Your task to perform on an android device: check google app version Image 0: 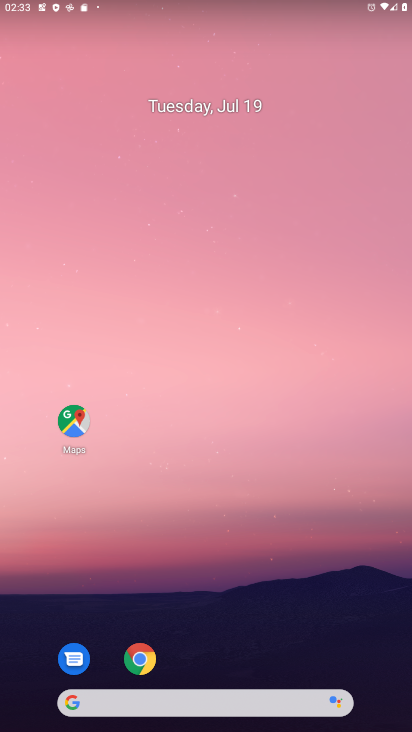
Step 0: drag from (271, 662) to (273, 77)
Your task to perform on an android device: check google app version Image 1: 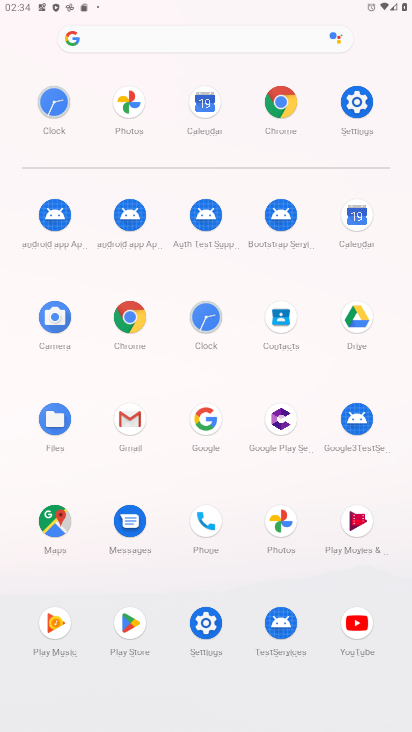
Step 1: click (215, 419)
Your task to perform on an android device: check google app version Image 2: 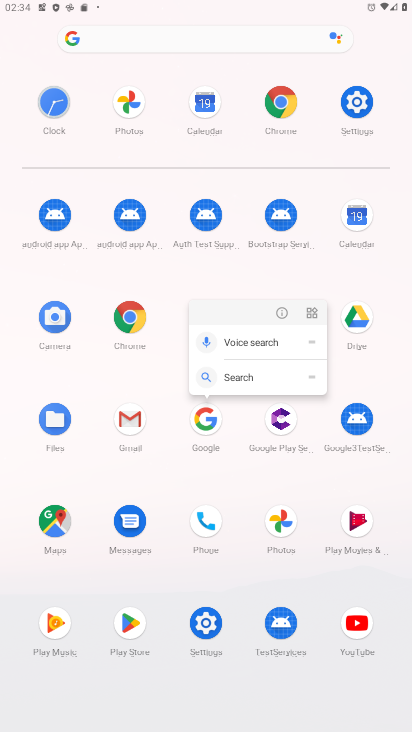
Step 2: click (270, 308)
Your task to perform on an android device: check google app version Image 3: 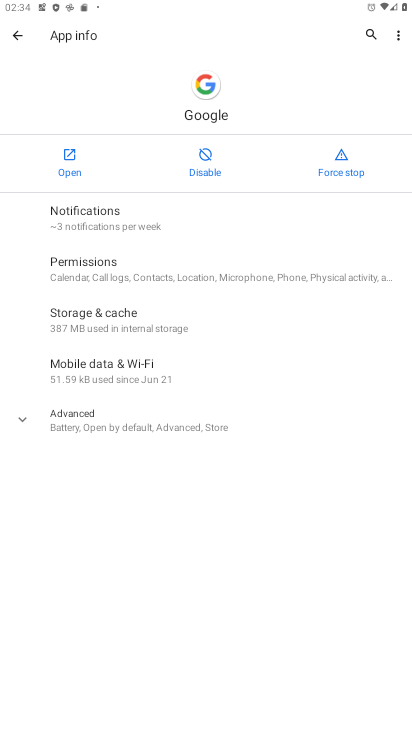
Step 3: click (140, 409)
Your task to perform on an android device: check google app version Image 4: 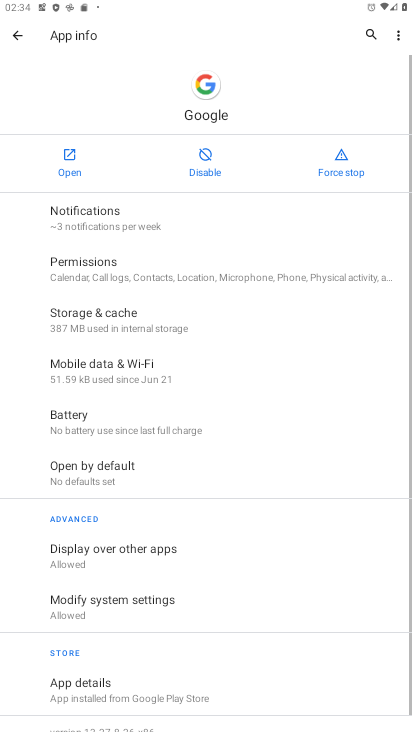
Step 4: drag from (134, 648) to (160, 326)
Your task to perform on an android device: check google app version Image 5: 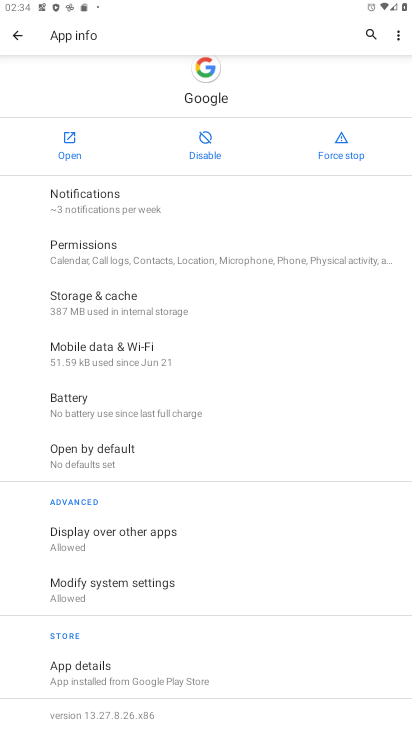
Step 5: click (91, 715)
Your task to perform on an android device: check google app version Image 6: 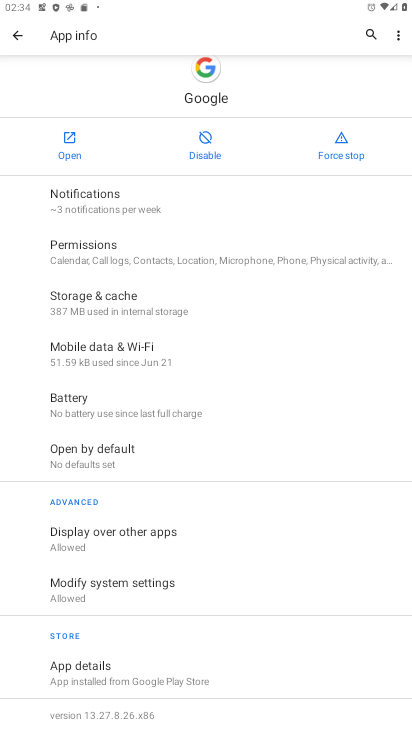
Step 6: task complete